Your task to perform on an android device: check android version Image 0: 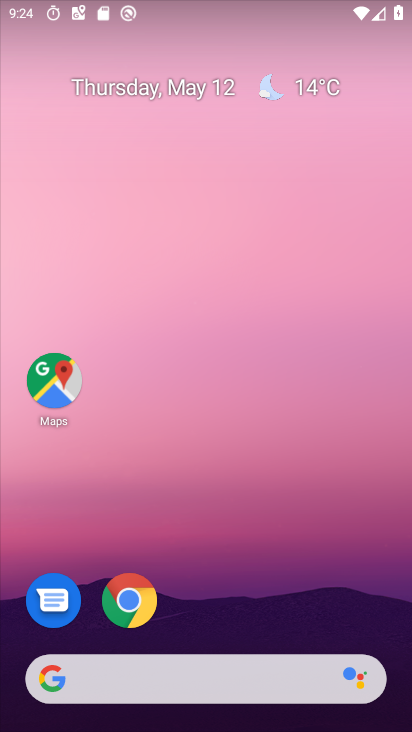
Step 0: drag from (244, 468) to (29, 24)
Your task to perform on an android device: check android version Image 1: 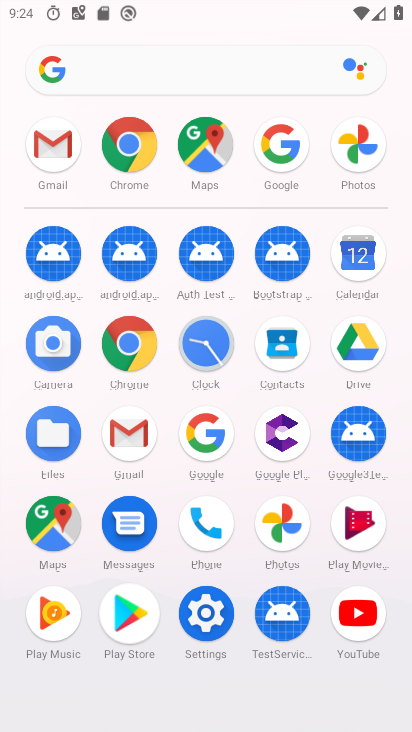
Step 1: click (202, 445)
Your task to perform on an android device: check android version Image 2: 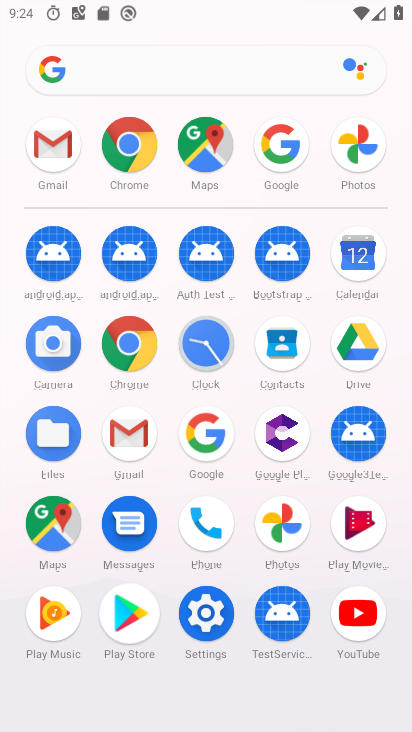
Step 2: click (202, 445)
Your task to perform on an android device: check android version Image 3: 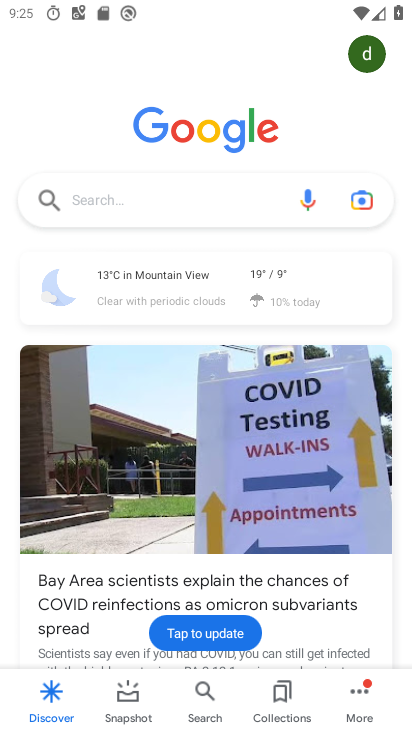
Step 3: click (355, 695)
Your task to perform on an android device: check android version Image 4: 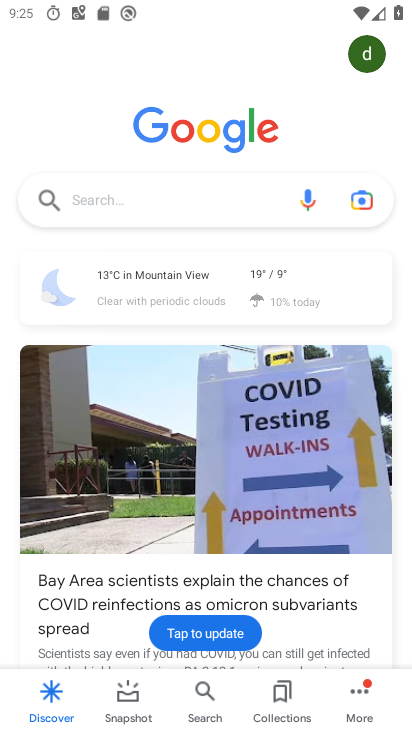
Step 4: click (356, 694)
Your task to perform on an android device: check android version Image 5: 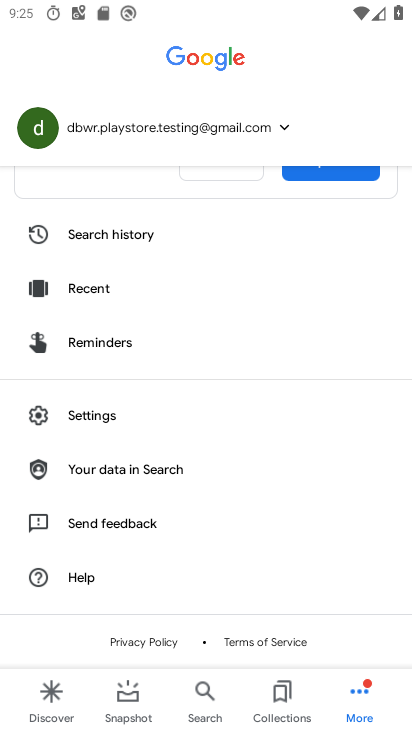
Step 5: click (353, 695)
Your task to perform on an android device: check android version Image 6: 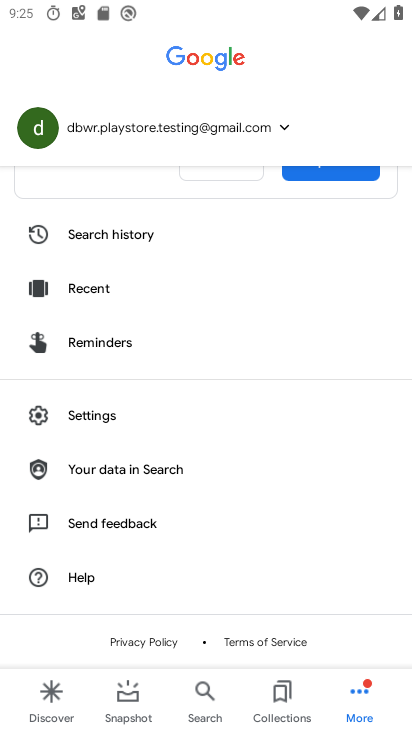
Step 6: click (355, 694)
Your task to perform on an android device: check android version Image 7: 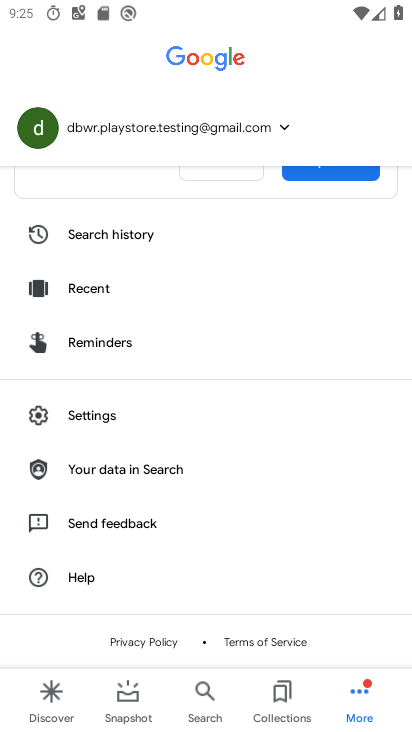
Step 7: drag from (130, 437) to (93, 13)
Your task to perform on an android device: check android version Image 8: 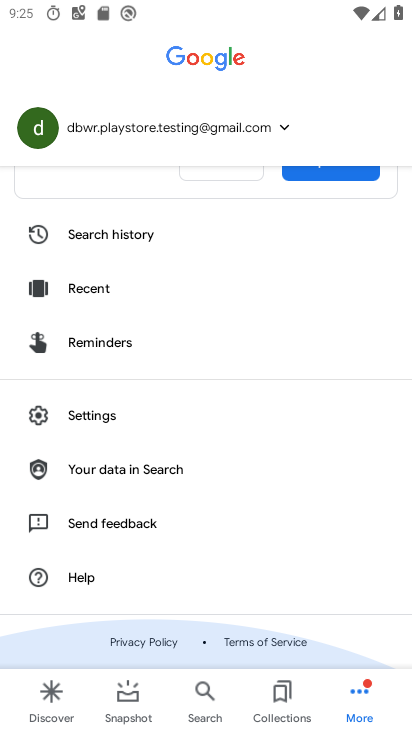
Step 8: drag from (215, 566) to (117, 76)
Your task to perform on an android device: check android version Image 9: 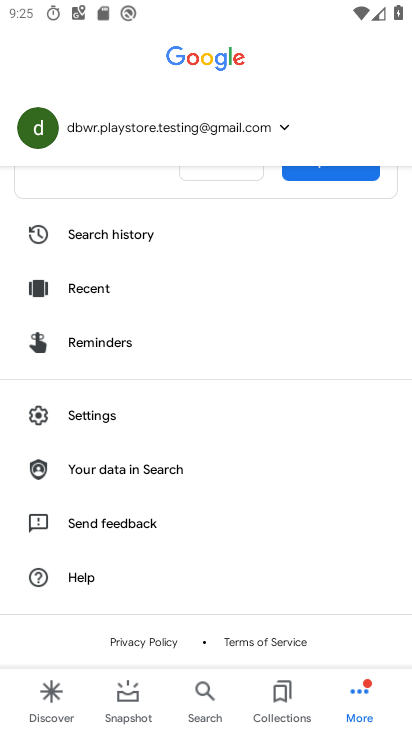
Step 9: drag from (165, 384) to (93, 67)
Your task to perform on an android device: check android version Image 10: 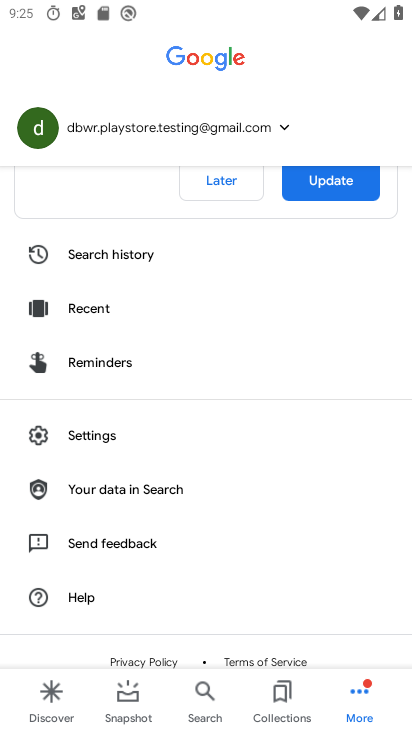
Step 10: drag from (115, 81) to (136, 175)
Your task to perform on an android device: check android version Image 11: 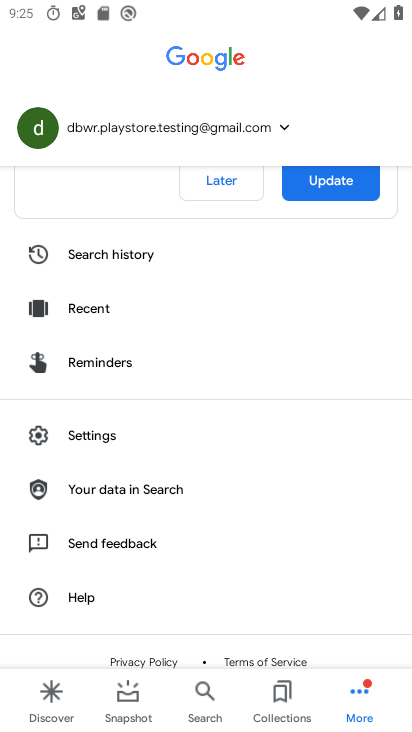
Step 11: click (62, 98)
Your task to perform on an android device: check android version Image 12: 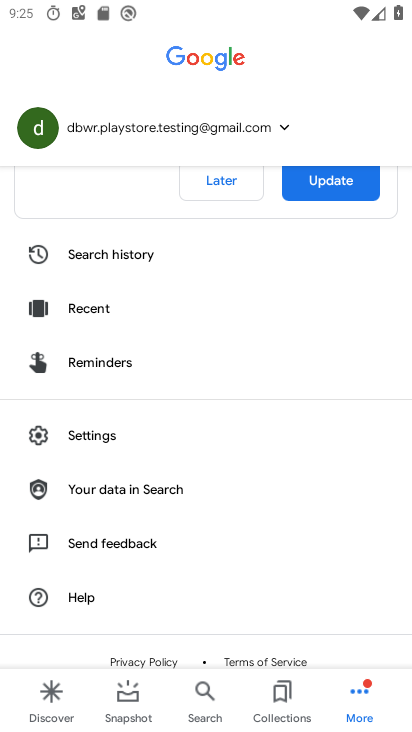
Step 12: drag from (103, 122) to (115, 179)
Your task to perform on an android device: check android version Image 13: 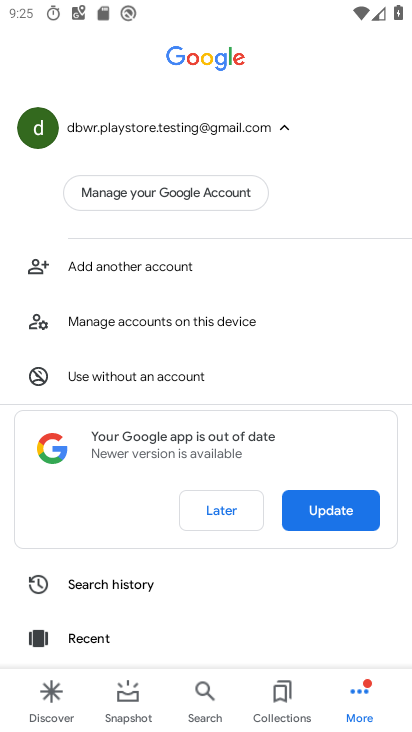
Step 13: drag from (182, 579) to (127, 237)
Your task to perform on an android device: check android version Image 14: 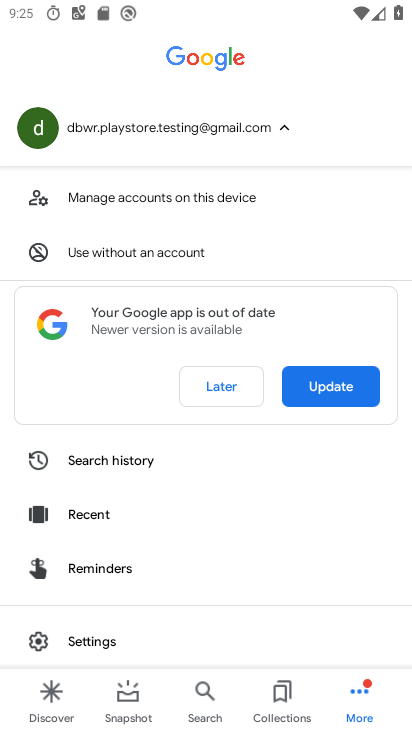
Step 14: drag from (219, 345) to (199, 124)
Your task to perform on an android device: check android version Image 15: 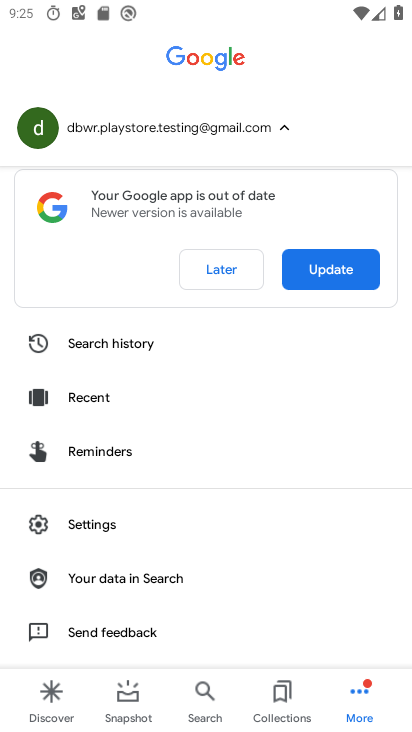
Step 15: drag from (215, 439) to (169, 140)
Your task to perform on an android device: check android version Image 16: 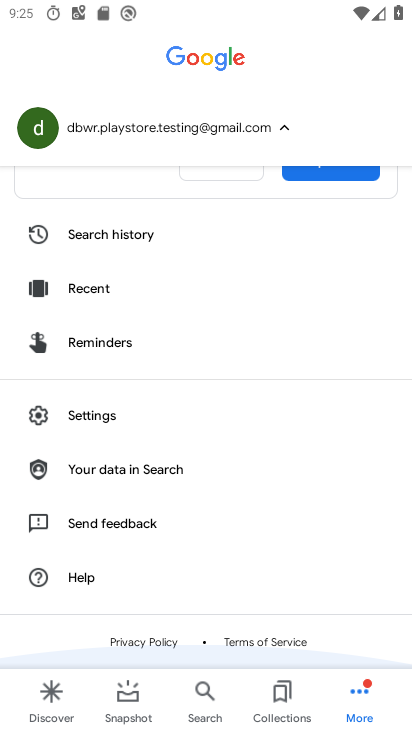
Step 16: drag from (210, 309) to (158, 129)
Your task to perform on an android device: check android version Image 17: 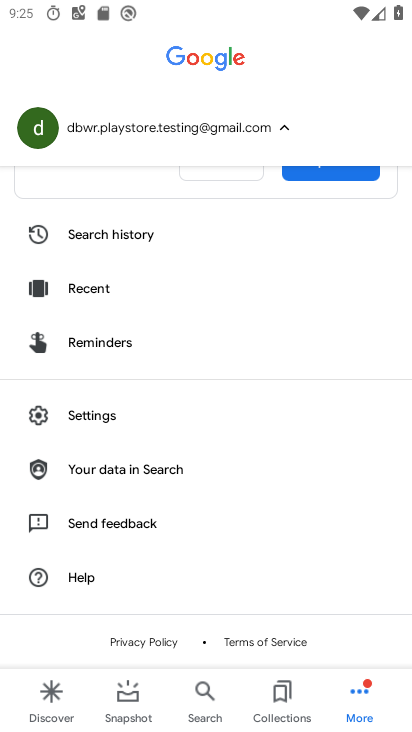
Step 17: click (86, 409)
Your task to perform on an android device: check android version Image 18: 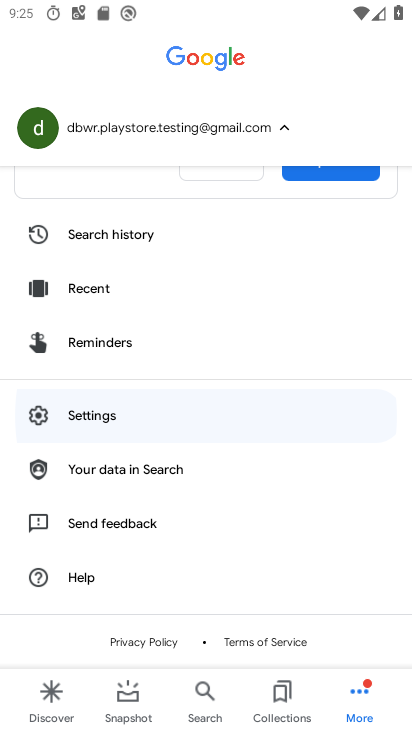
Step 18: click (87, 409)
Your task to perform on an android device: check android version Image 19: 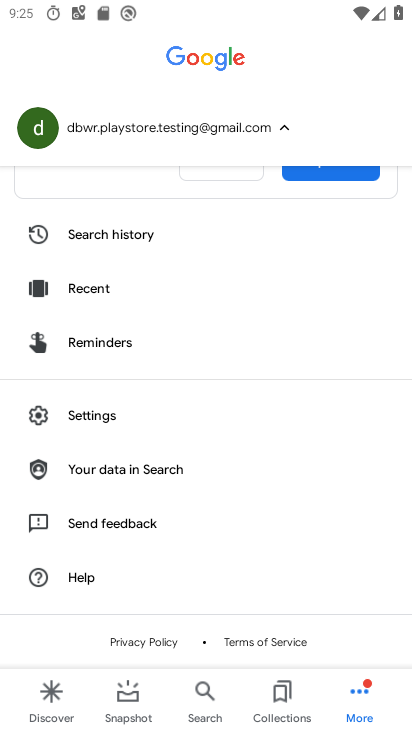
Step 19: click (87, 409)
Your task to perform on an android device: check android version Image 20: 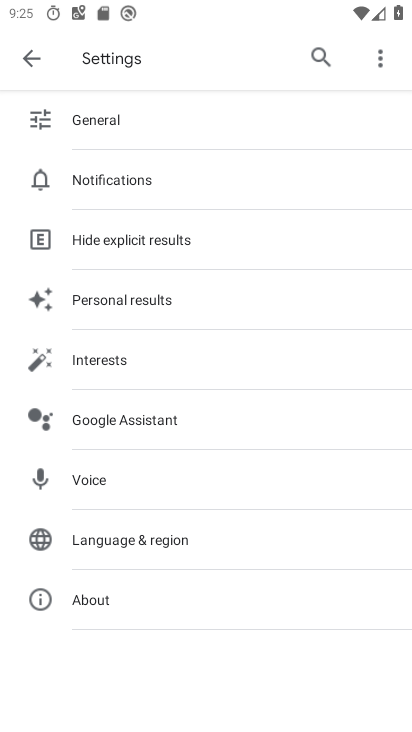
Step 20: click (87, 409)
Your task to perform on an android device: check android version Image 21: 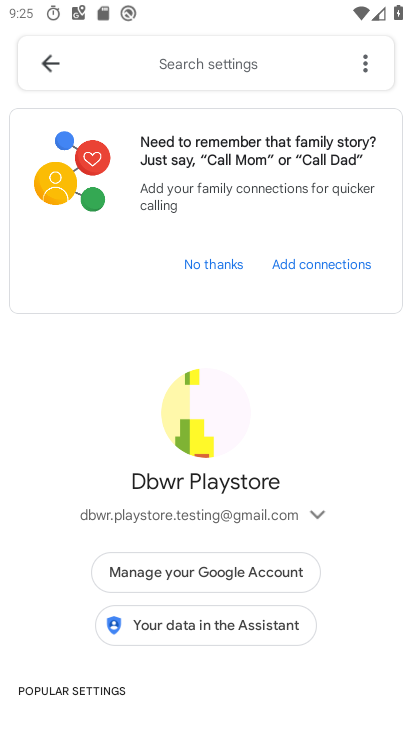
Step 21: click (50, 54)
Your task to perform on an android device: check android version Image 22: 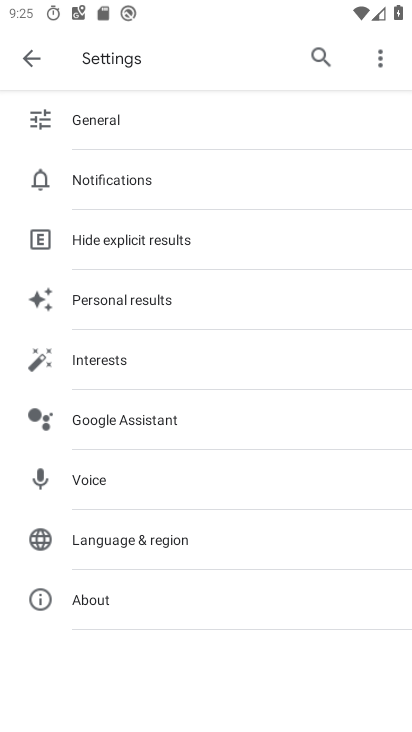
Step 22: click (89, 601)
Your task to perform on an android device: check android version Image 23: 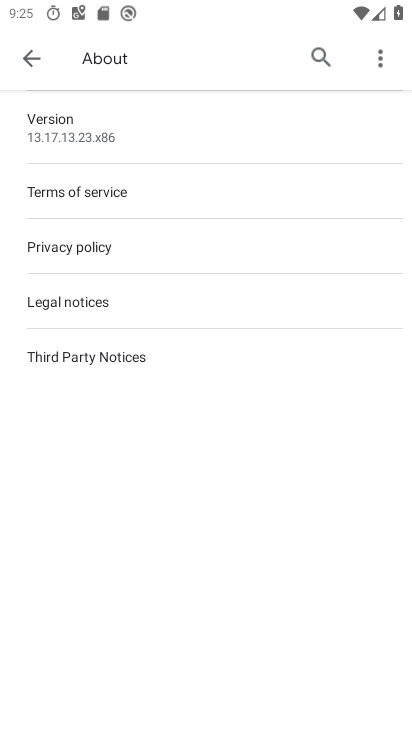
Step 23: task complete